Your task to perform on an android device: Show me productivity apps on the Play Store Image 0: 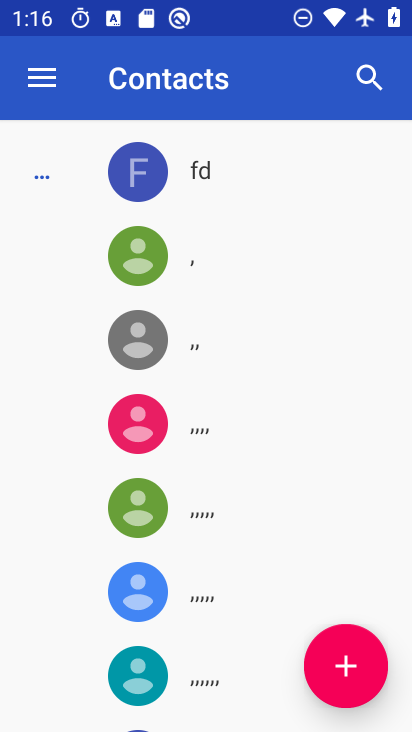
Step 0: press home button
Your task to perform on an android device: Show me productivity apps on the Play Store Image 1: 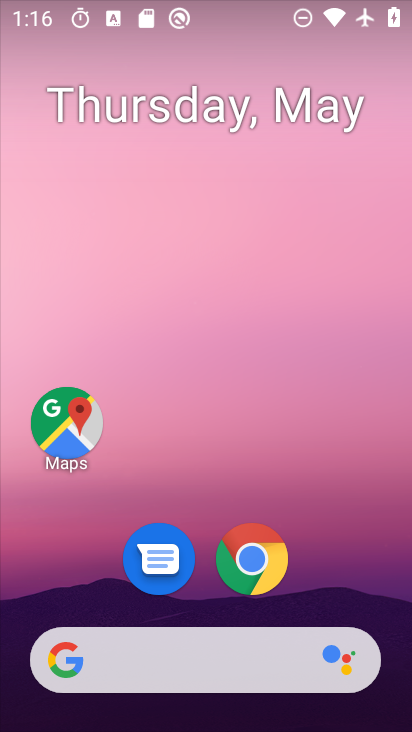
Step 1: drag from (284, 644) to (245, 242)
Your task to perform on an android device: Show me productivity apps on the Play Store Image 2: 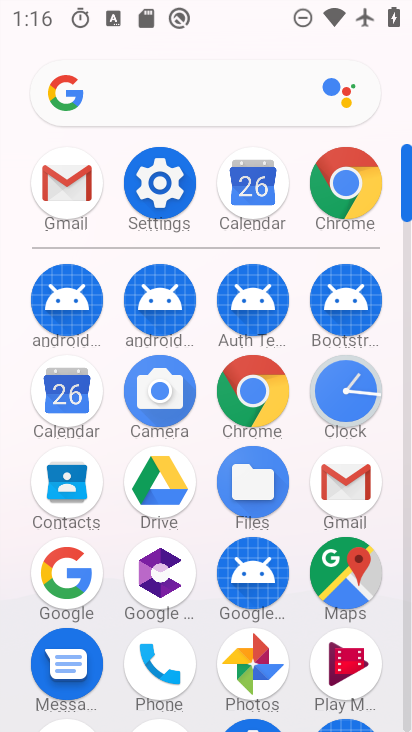
Step 2: drag from (205, 588) to (234, 339)
Your task to perform on an android device: Show me productivity apps on the Play Store Image 3: 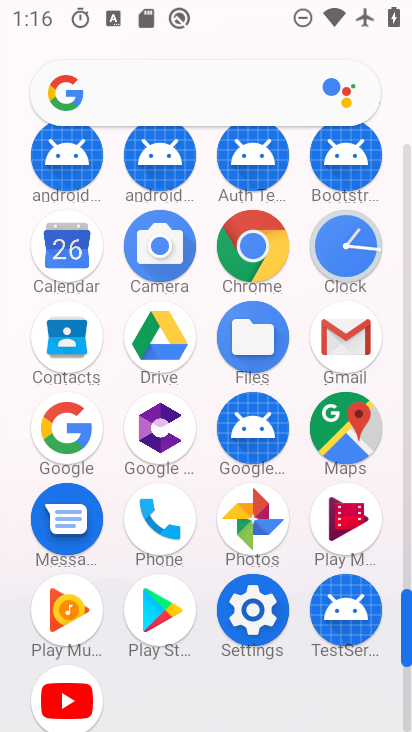
Step 3: click (167, 606)
Your task to perform on an android device: Show me productivity apps on the Play Store Image 4: 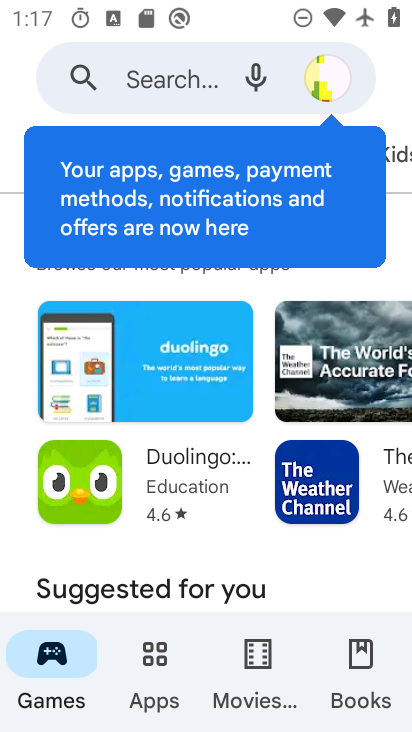
Step 4: click (170, 76)
Your task to perform on an android device: Show me productivity apps on the Play Store Image 5: 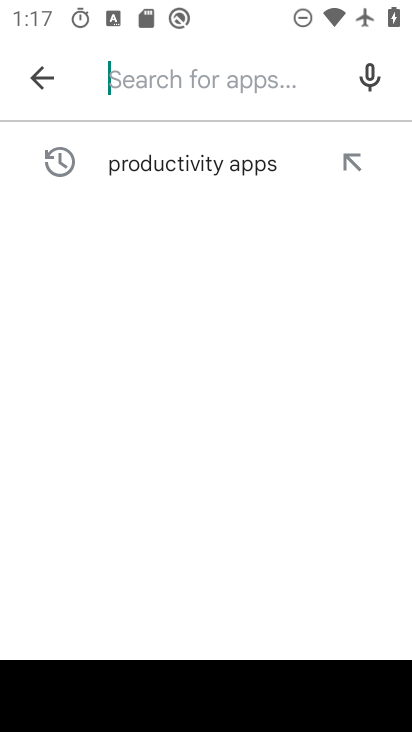
Step 5: click (288, 160)
Your task to perform on an android device: Show me productivity apps on the Play Store Image 6: 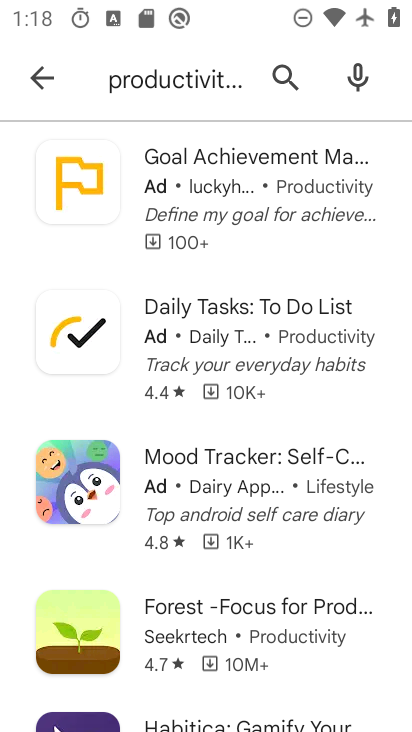
Step 6: task complete